Your task to perform on an android device: Go to Reddit.com Image 0: 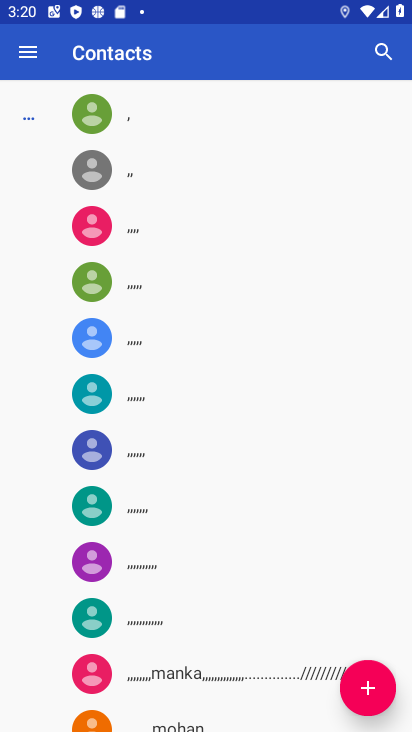
Step 0: press home button
Your task to perform on an android device: Go to Reddit.com Image 1: 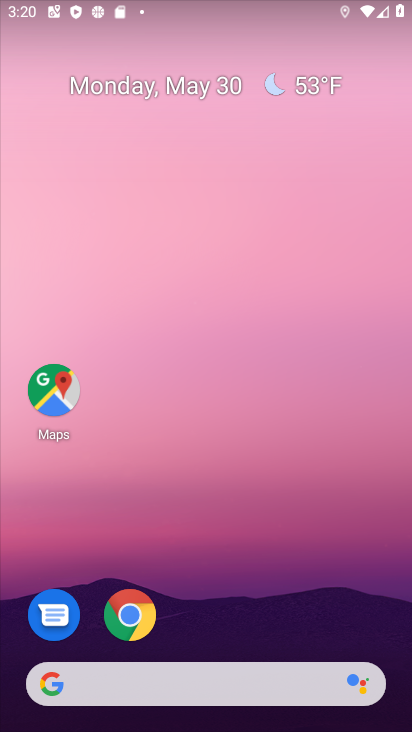
Step 1: click (122, 631)
Your task to perform on an android device: Go to Reddit.com Image 2: 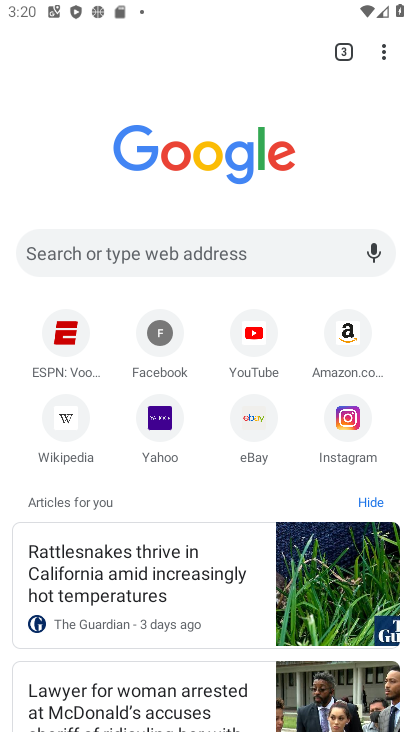
Step 2: click (265, 252)
Your task to perform on an android device: Go to Reddit.com Image 3: 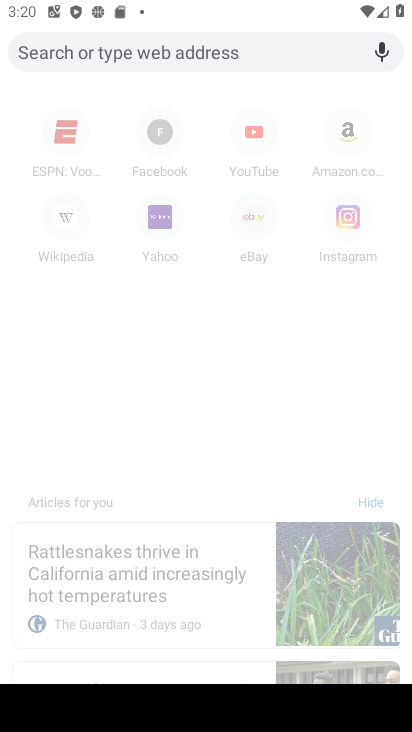
Step 3: type "reddit.com"
Your task to perform on an android device: Go to Reddit.com Image 4: 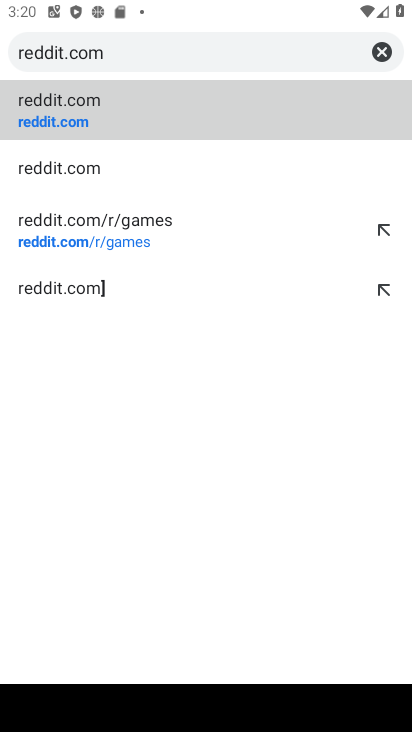
Step 4: click (52, 121)
Your task to perform on an android device: Go to Reddit.com Image 5: 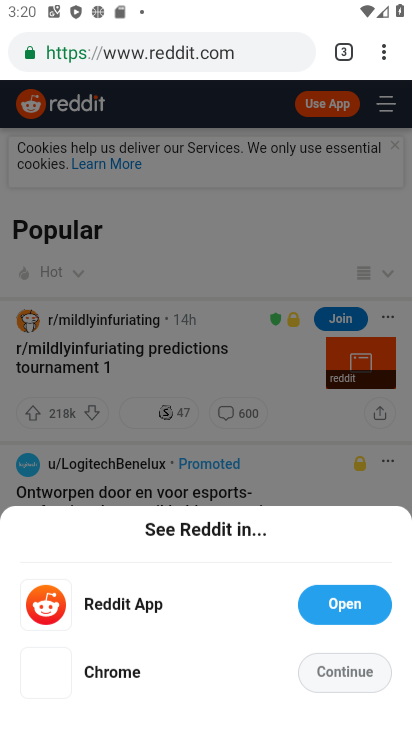
Step 5: task complete